Your task to perform on an android device: Open Google Chrome and open the bookmarks view Image 0: 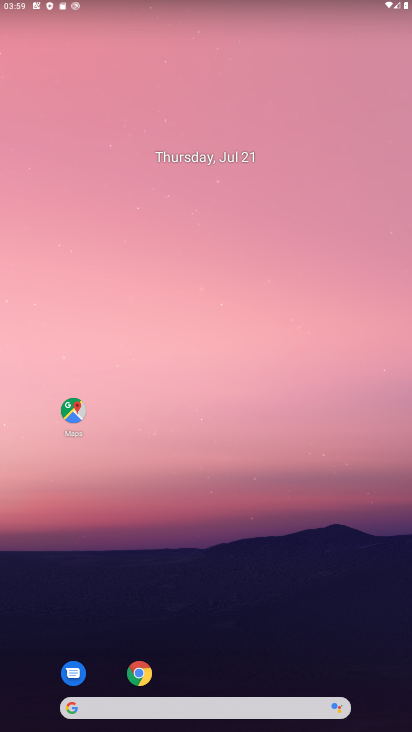
Step 0: drag from (228, 662) to (224, 107)
Your task to perform on an android device: Open Google Chrome and open the bookmarks view Image 1: 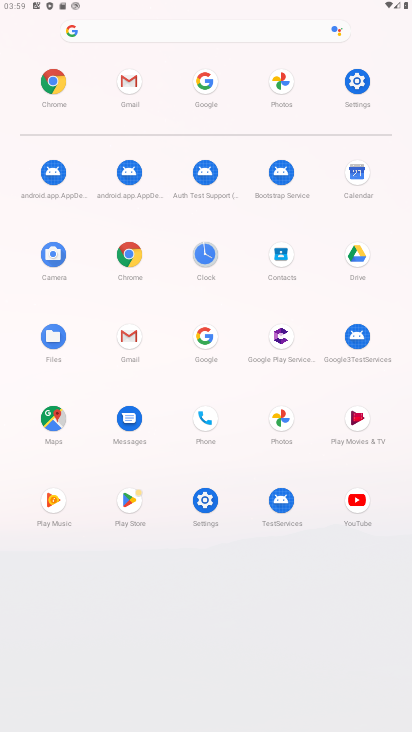
Step 1: click (134, 252)
Your task to perform on an android device: Open Google Chrome and open the bookmarks view Image 2: 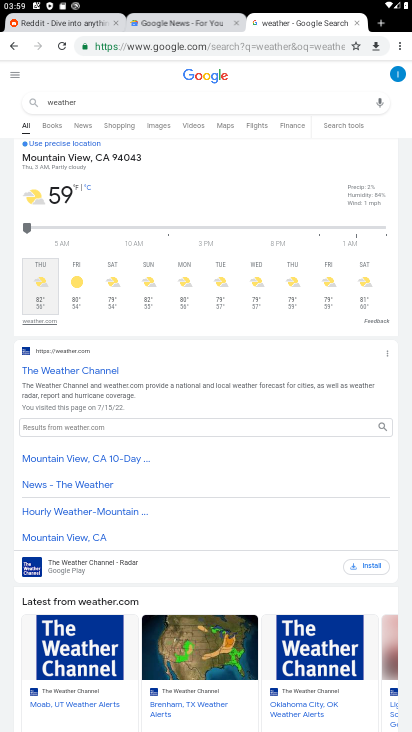
Step 2: task complete